Your task to perform on an android device: see tabs open on other devices in the chrome app Image 0: 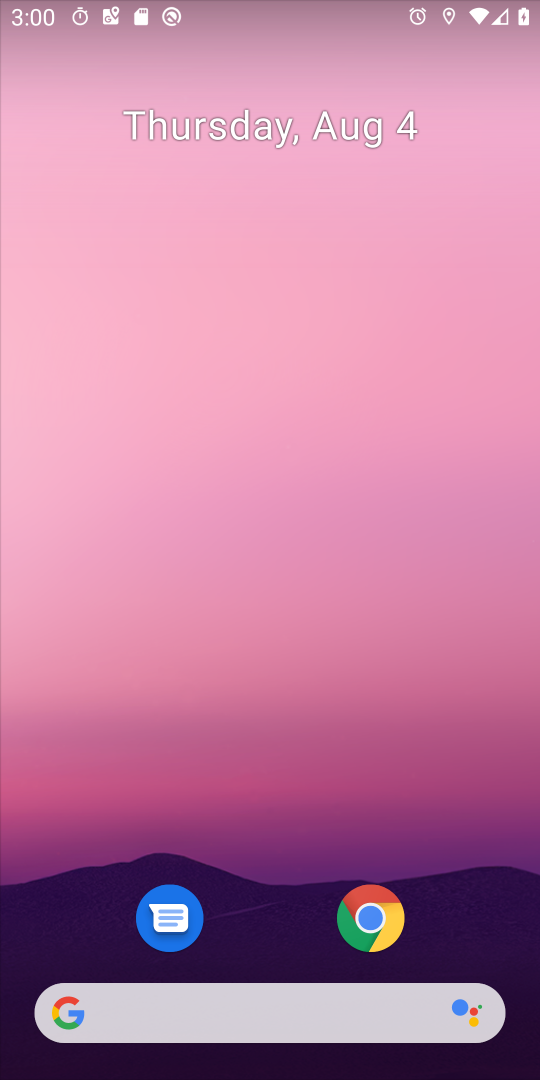
Step 0: click (360, 883)
Your task to perform on an android device: see tabs open on other devices in the chrome app Image 1: 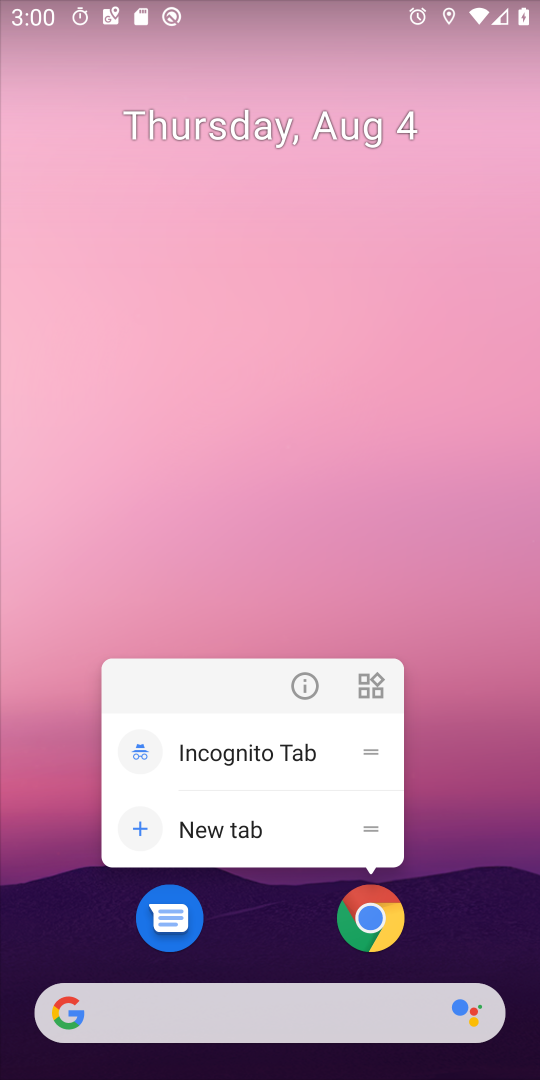
Step 1: click (371, 899)
Your task to perform on an android device: see tabs open on other devices in the chrome app Image 2: 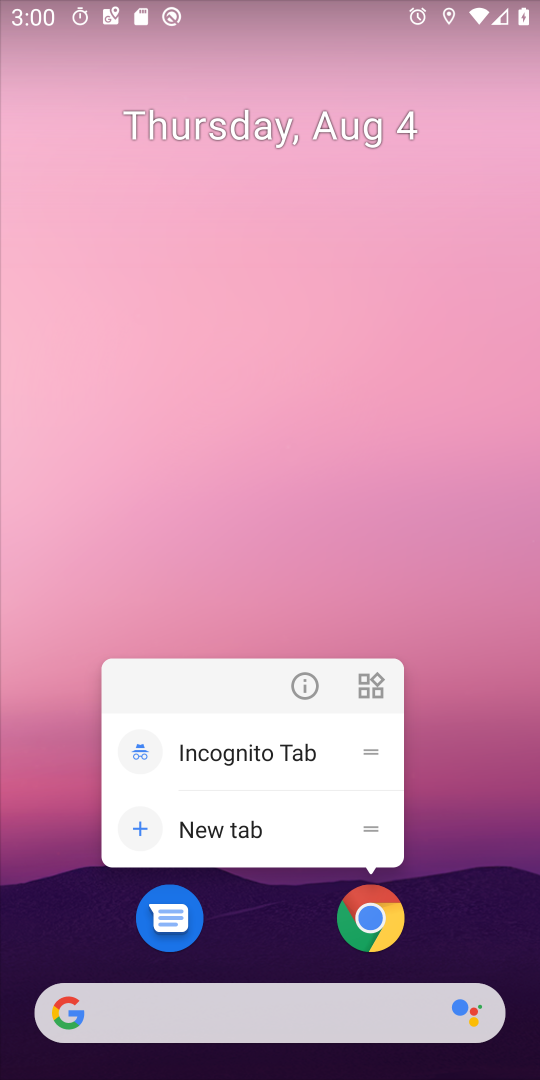
Step 2: click (371, 899)
Your task to perform on an android device: see tabs open on other devices in the chrome app Image 3: 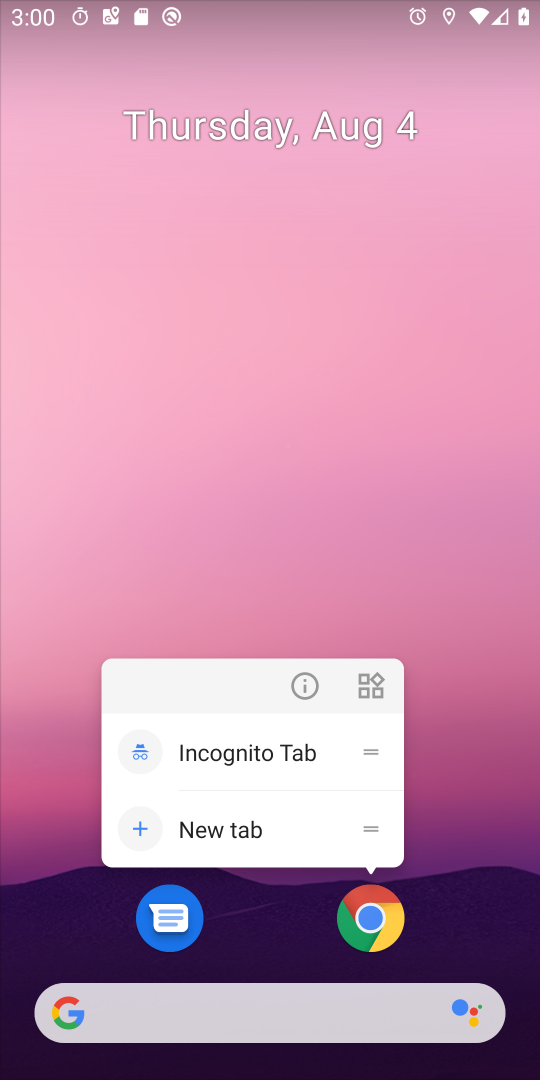
Step 3: click (371, 899)
Your task to perform on an android device: see tabs open on other devices in the chrome app Image 4: 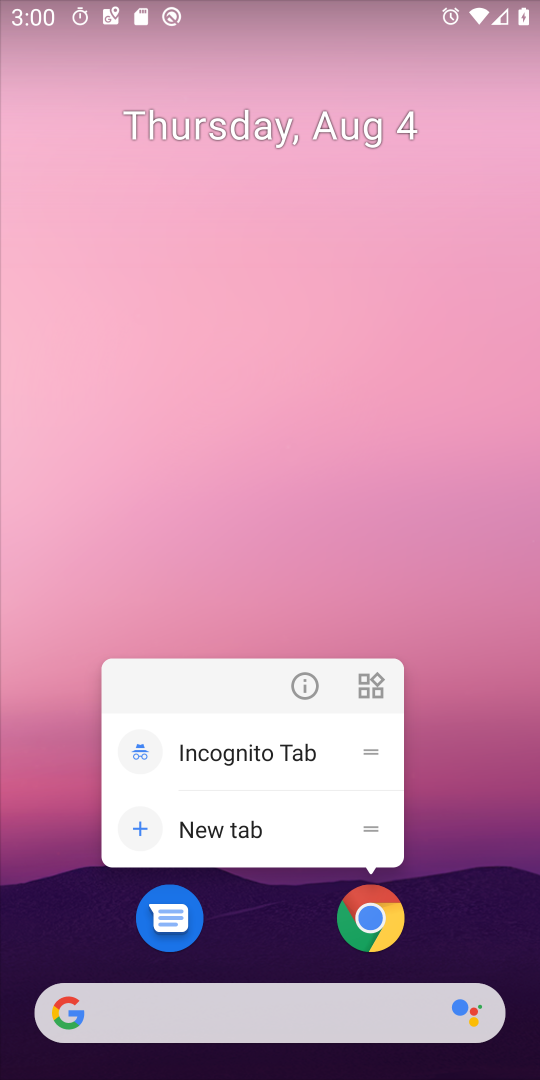
Step 4: click (382, 917)
Your task to perform on an android device: see tabs open on other devices in the chrome app Image 5: 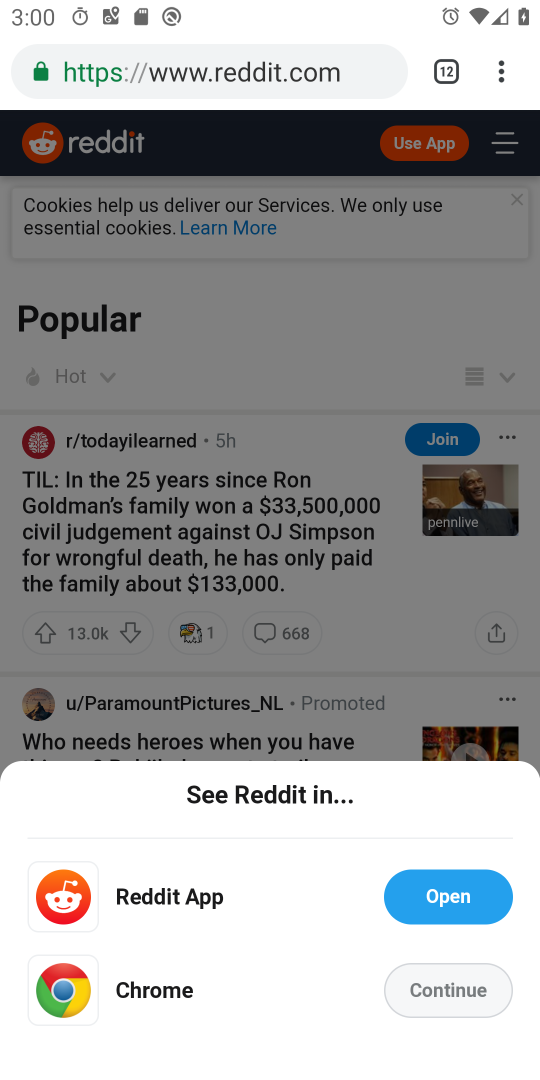
Step 5: click (489, 71)
Your task to perform on an android device: see tabs open on other devices in the chrome app Image 6: 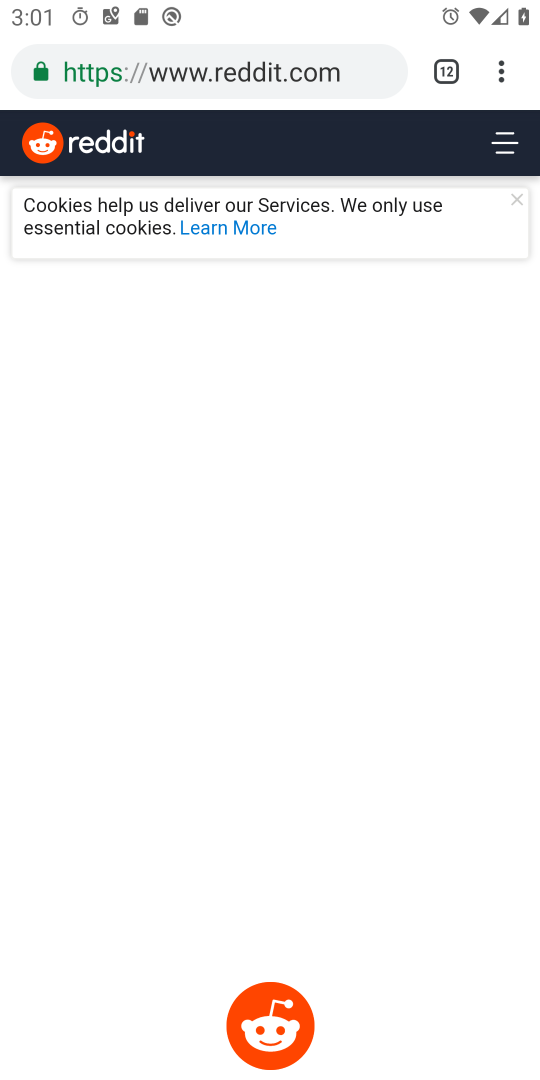
Step 6: task complete